Your task to perform on an android device: toggle data saver in the chrome app Image 0: 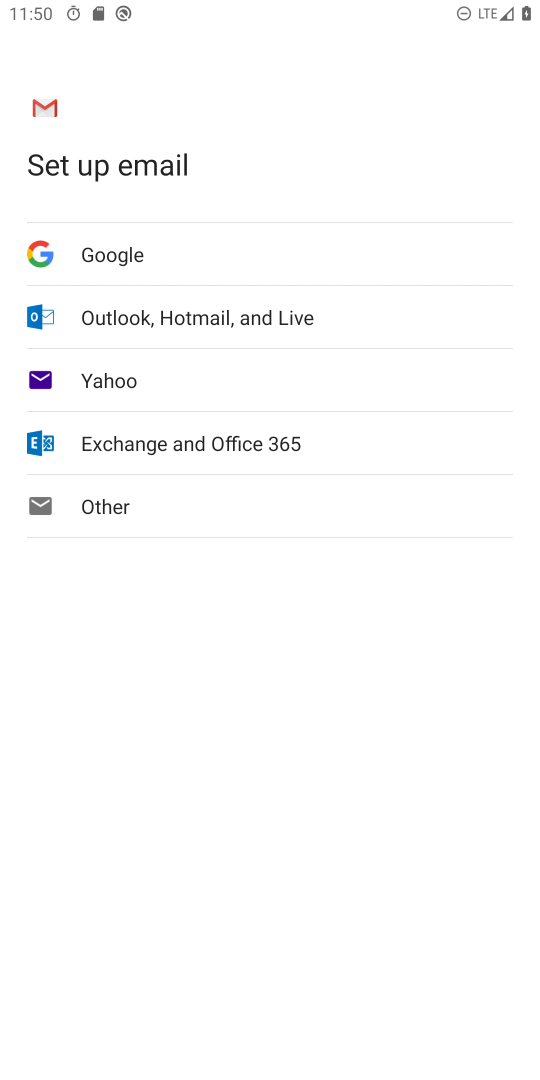
Step 0: press home button
Your task to perform on an android device: toggle data saver in the chrome app Image 1: 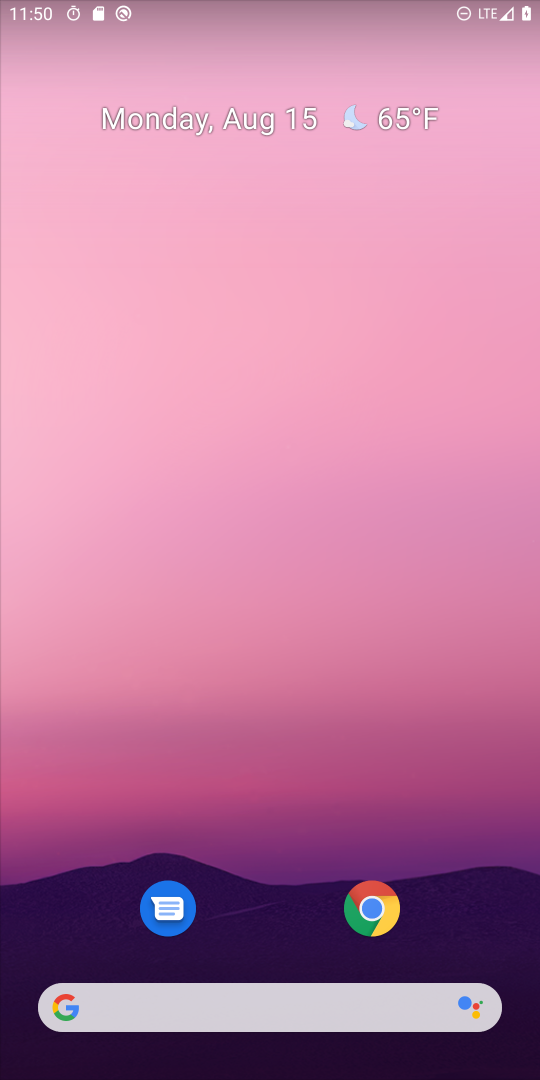
Step 1: click (382, 891)
Your task to perform on an android device: toggle data saver in the chrome app Image 2: 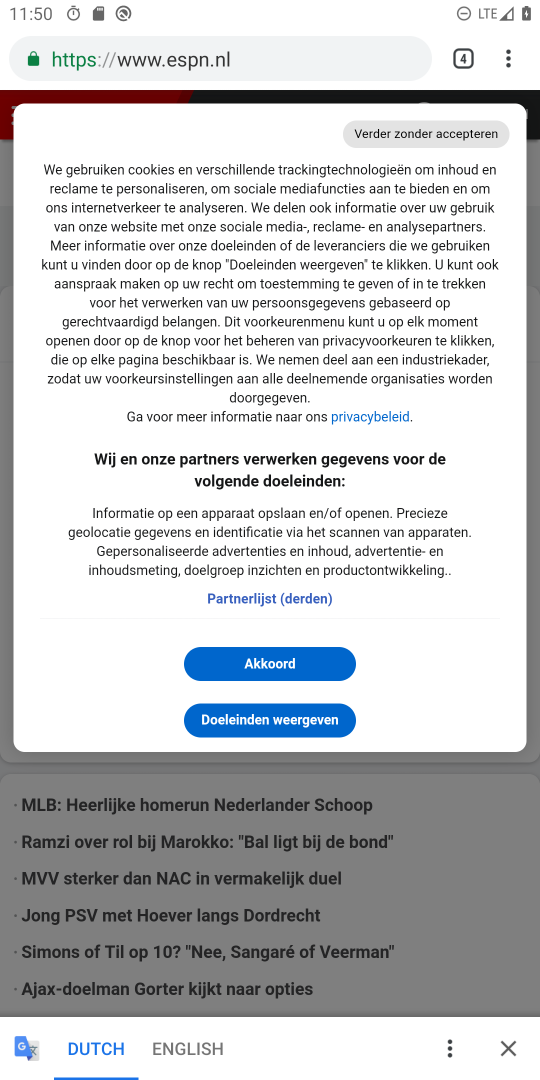
Step 2: click (518, 55)
Your task to perform on an android device: toggle data saver in the chrome app Image 3: 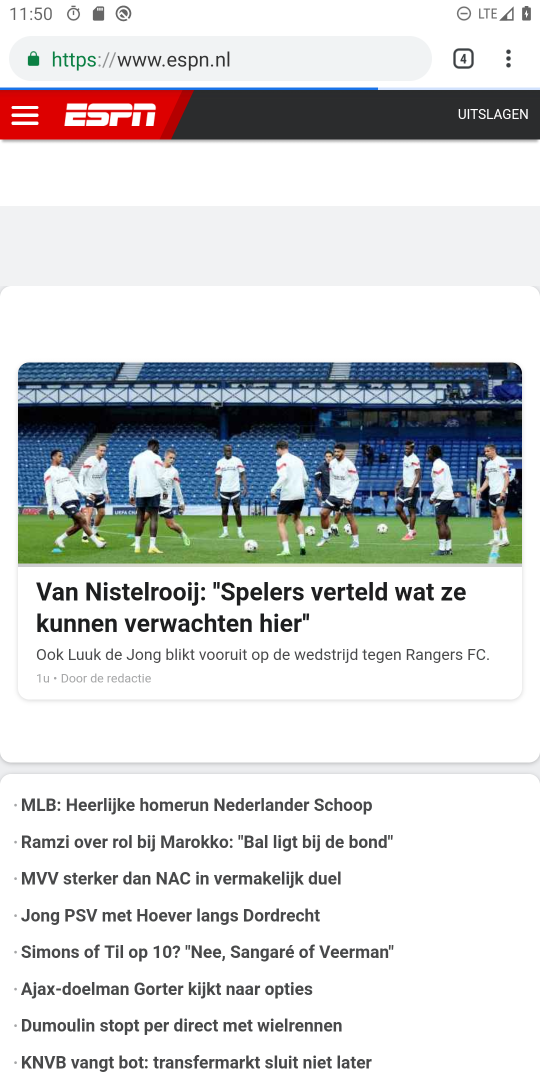
Step 3: click (516, 54)
Your task to perform on an android device: toggle data saver in the chrome app Image 4: 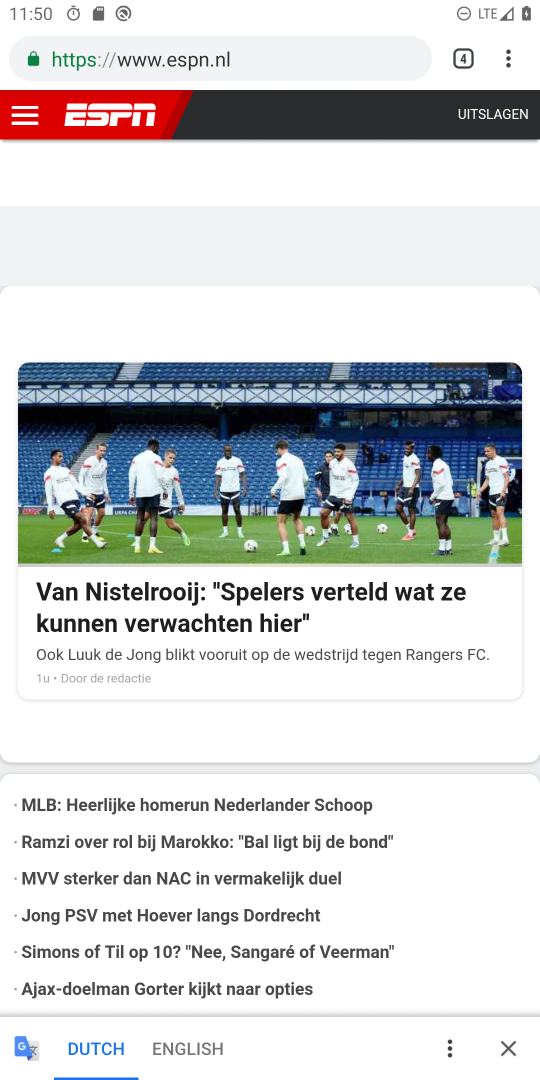
Step 4: click (516, 54)
Your task to perform on an android device: toggle data saver in the chrome app Image 5: 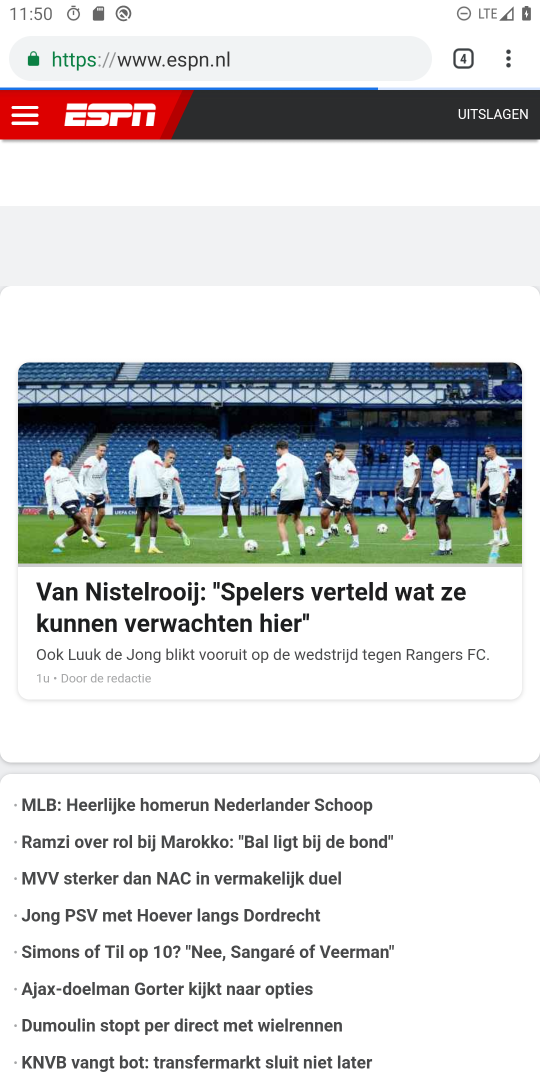
Step 5: click (516, 54)
Your task to perform on an android device: toggle data saver in the chrome app Image 6: 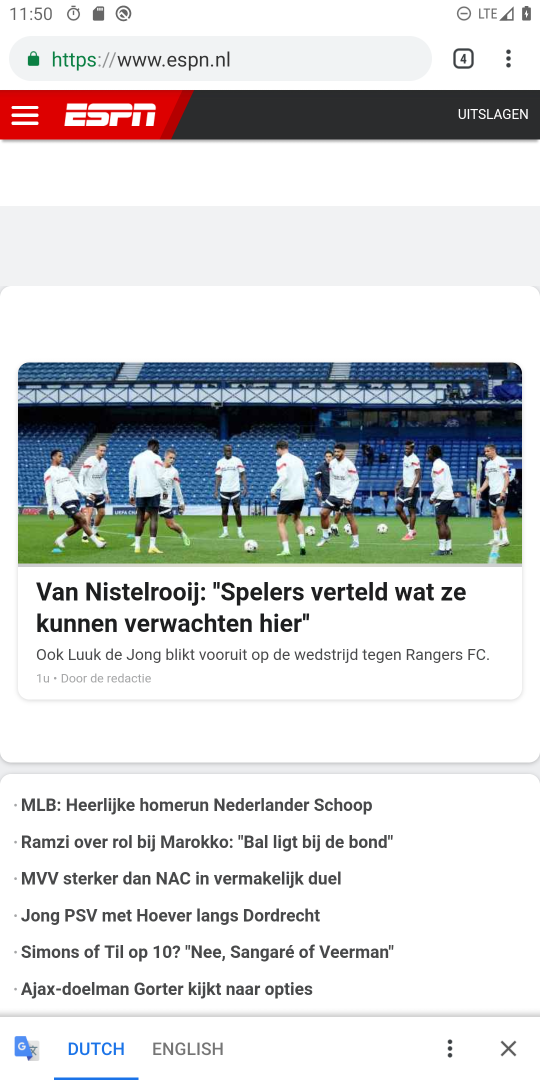
Step 6: click (497, 53)
Your task to perform on an android device: toggle data saver in the chrome app Image 7: 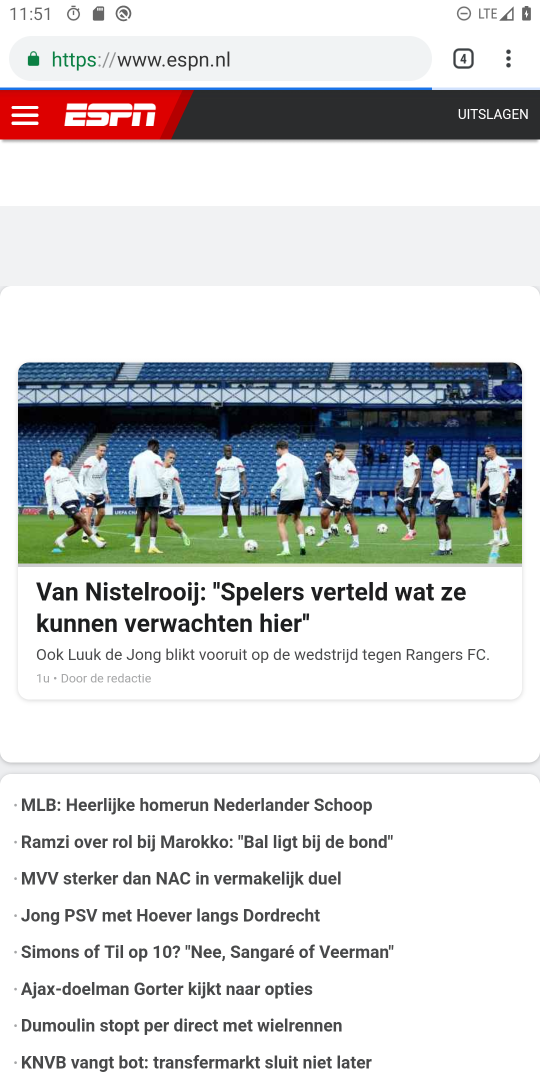
Step 7: click (508, 55)
Your task to perform on an android device: toggle data saver in the chrome app Image 8: 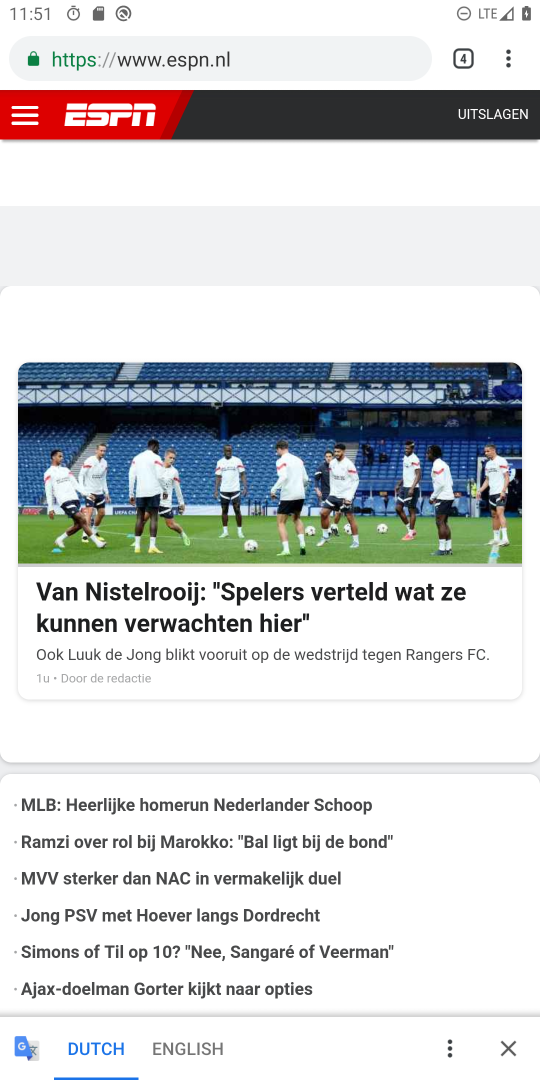
Step 8: click (508, 55)
Your task to perform on an android device: toggle data saver in the chrome app Image 9: 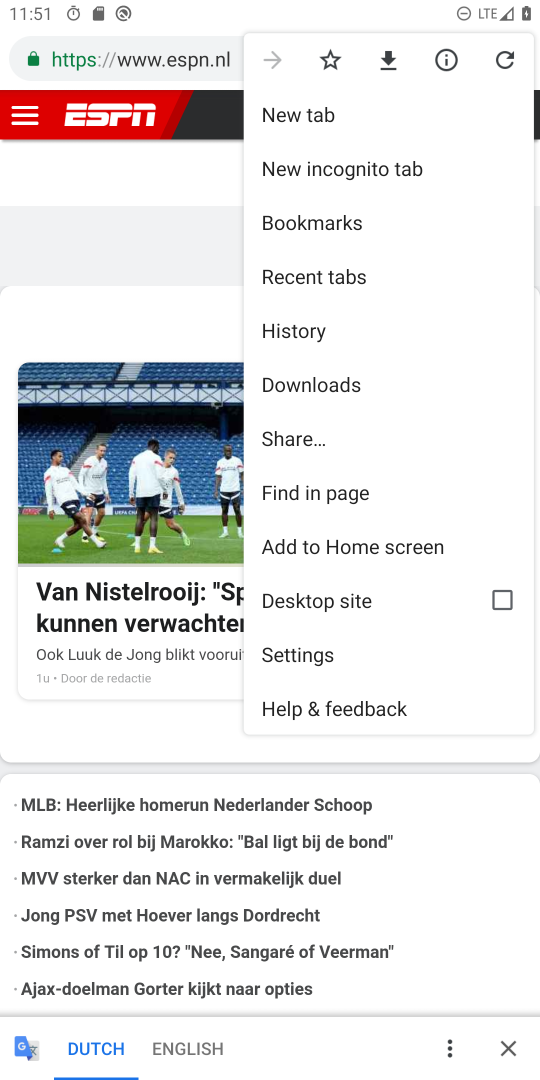
Step 9: click (316, 657)
Your task to perform on an android device: toggle data saver in the chrome app Image 10: 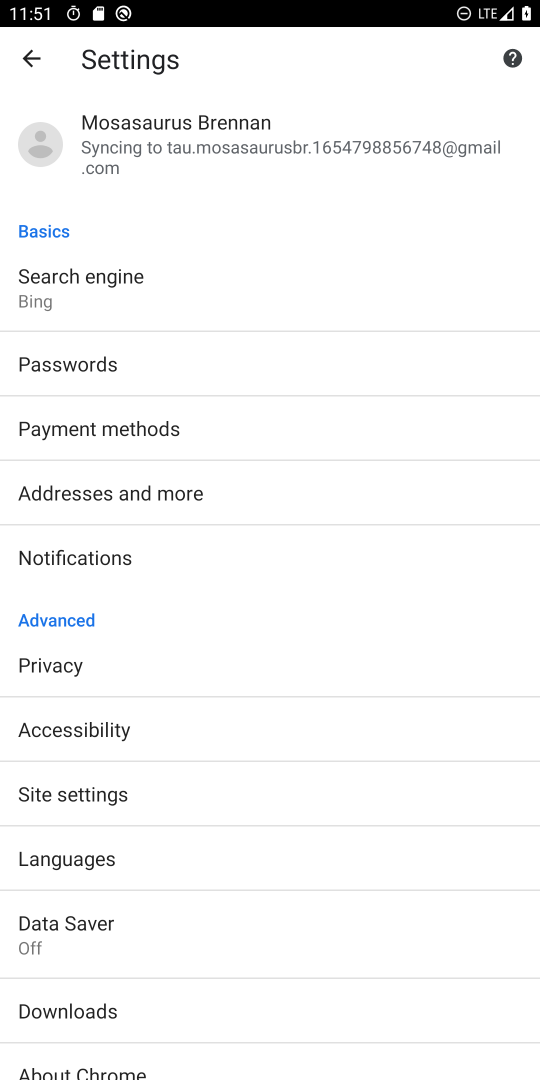
Step 10: click (158, 936)
Your task to perform on an android device: toggle data saver in the chrome app Image 11: 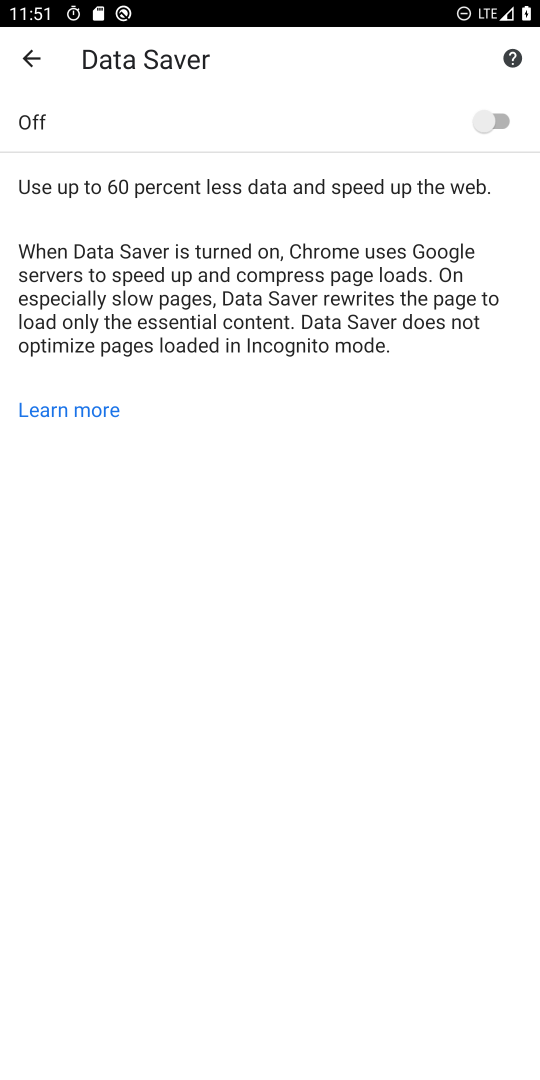
Step 11: click (496, 112)
Your task to perform on an android device: toggle data saver in the chrome app Image 12: 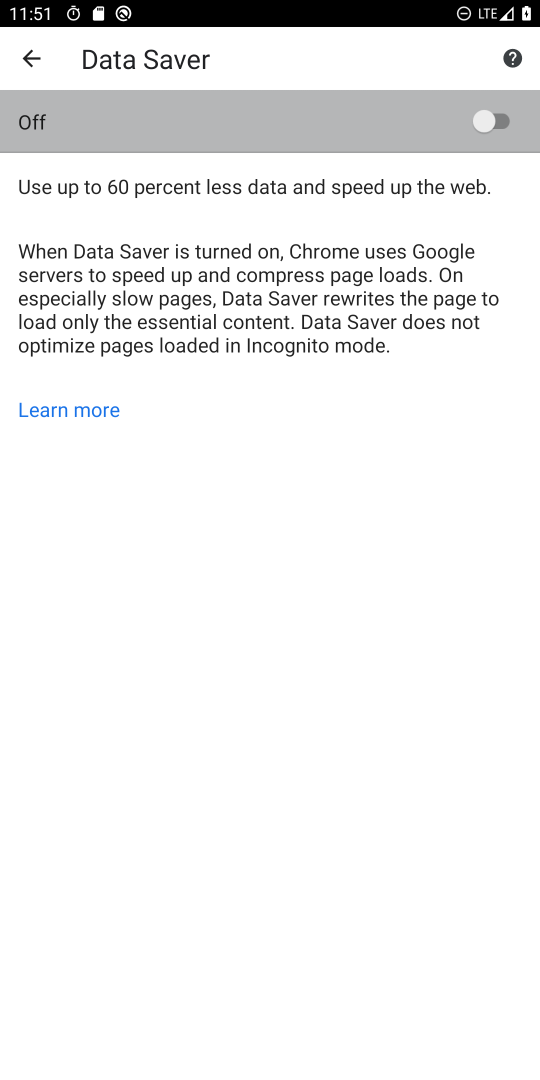
Step 12: click (496, 112)
Your task to perform on an android device: toggle data saver in the chrome app Image 13: 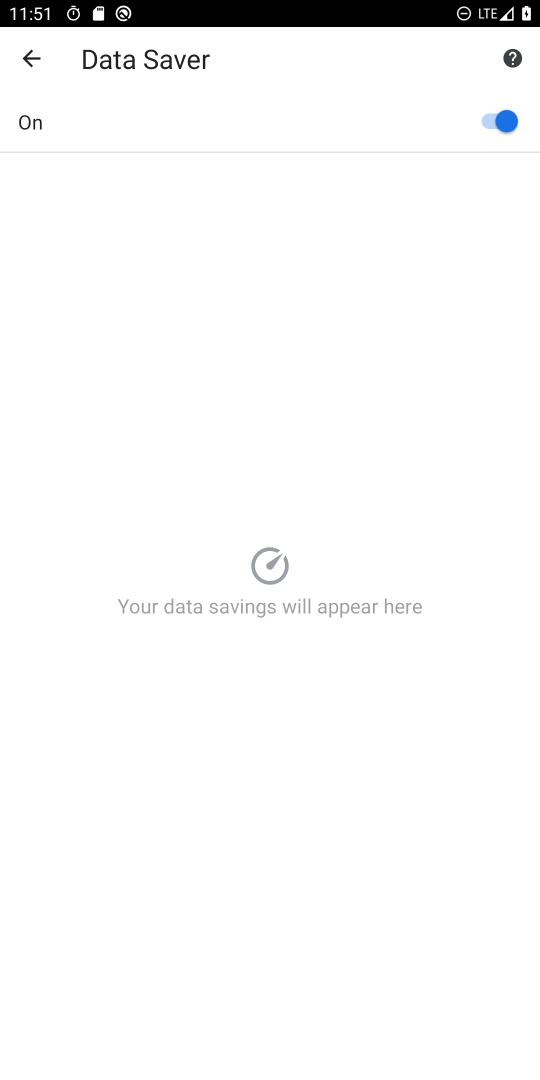
Step 13: click (496, 112)
Your task to perform on an android device: toggle data saver in the chrome app Image 14: 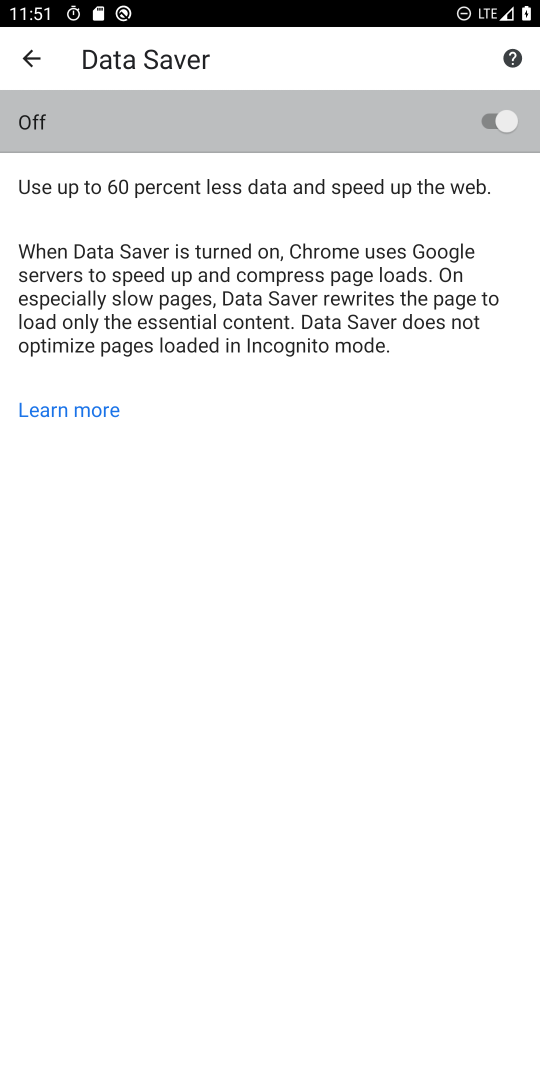
Step 14: click (496, 112)
Your task to perform on an android device: toggle data saver in the chrome app Image 15: 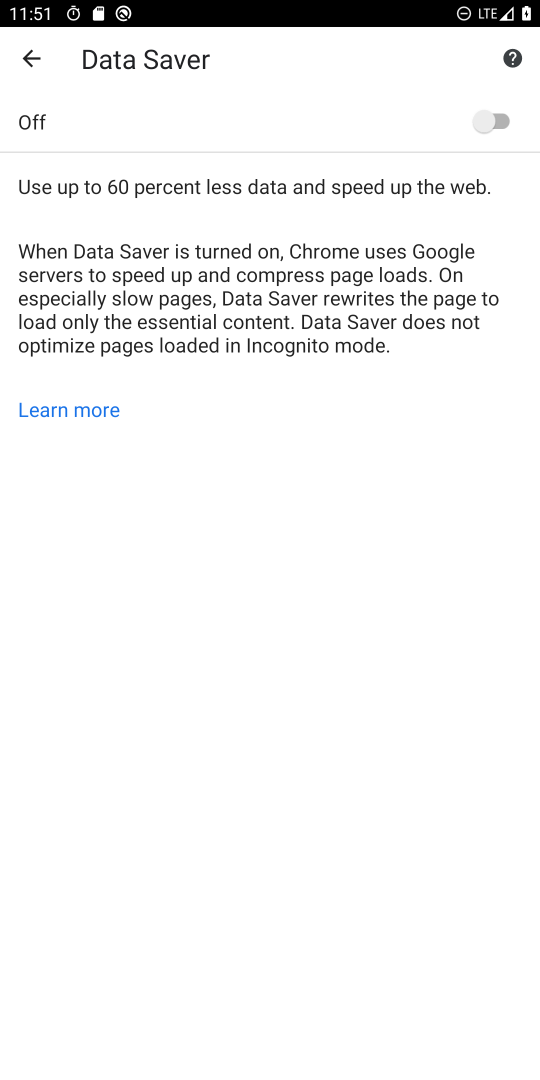
Step 15: task complete